Your task to perform on an android device: Open wifi settings Image 0: 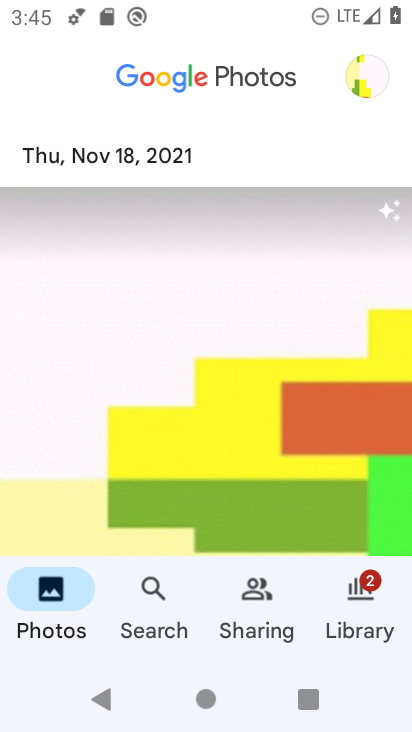
Step 0: press home button
Your task to perform on an android device: Open wifi settings Image 1: 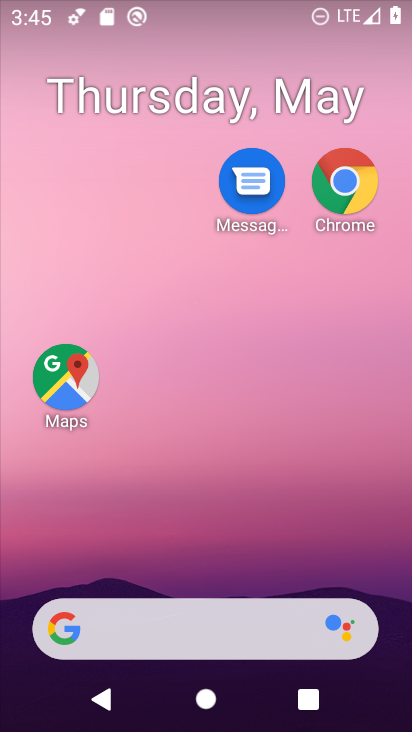
Step 1: drag from (201, 556) to (127, 15)
Your task to perform on an android device: Open wifi settings Image 2: 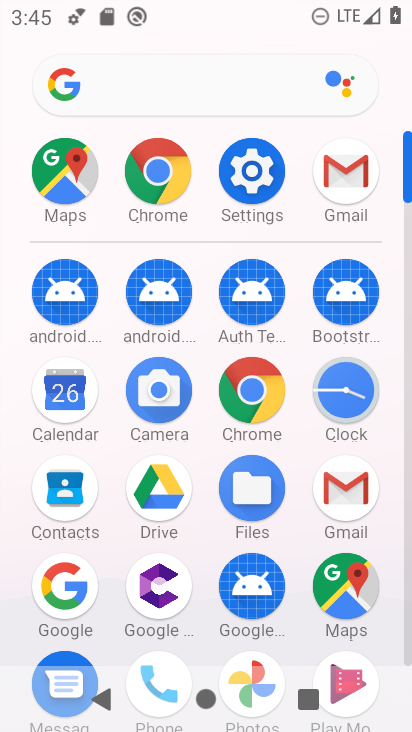
Step 2: click (268, 156)
Your task to perform on an android device: Open wifi settings Image 3: 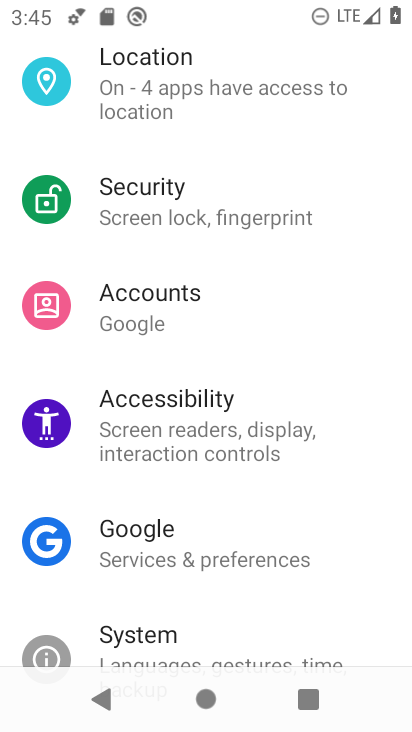
Step 3: drag from (255, 167) to (284, 730)
Your task to perform on an android device: Open wifi settings Image 4: 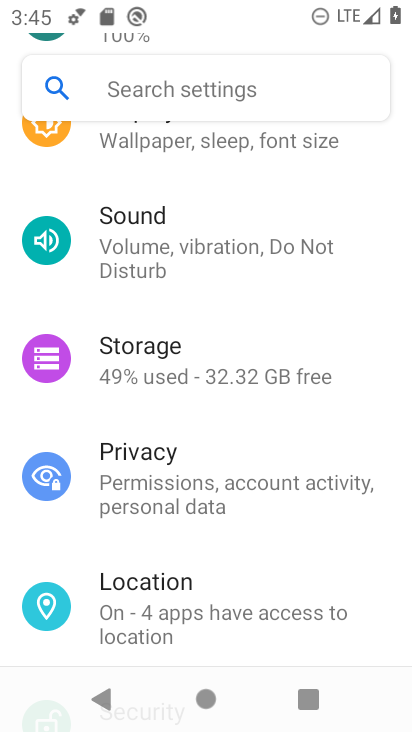
Step 4: drag from (274, 348) to (274, 719)
Your task to perform on an android device: Open wifi settings Image 5: 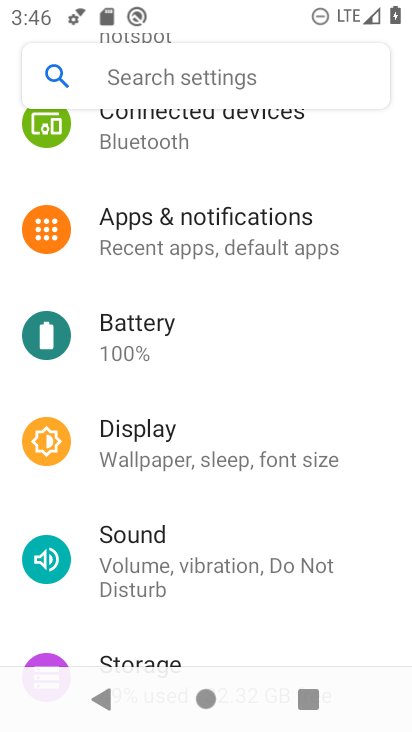
Step 5: drag from (227, 285) to (326, 694)
Your task to perform on an android device: Open wifi settings Image 6: 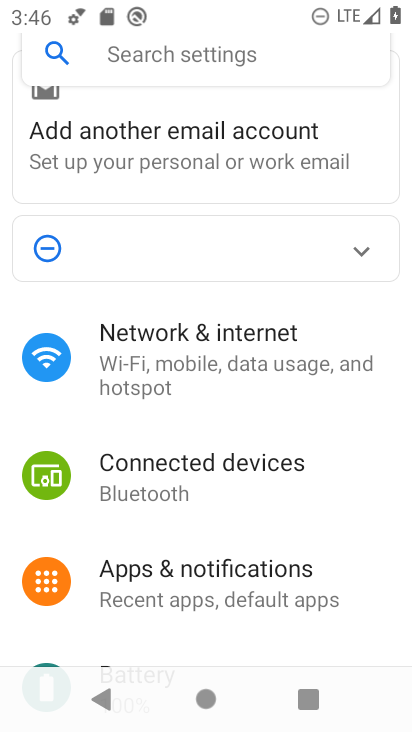
Step 6: click (244, 400)
Your task to perform on an android device: Open wifi settings Image 7: 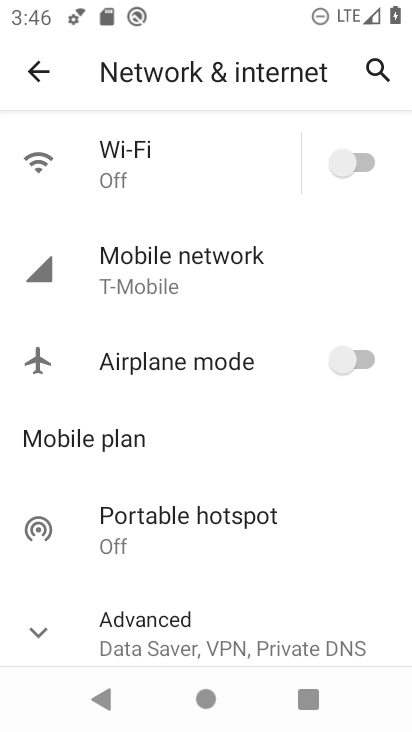
Step 7: click (192, 166)
Your task to perform on an android device: Open wifi settings Image 8: 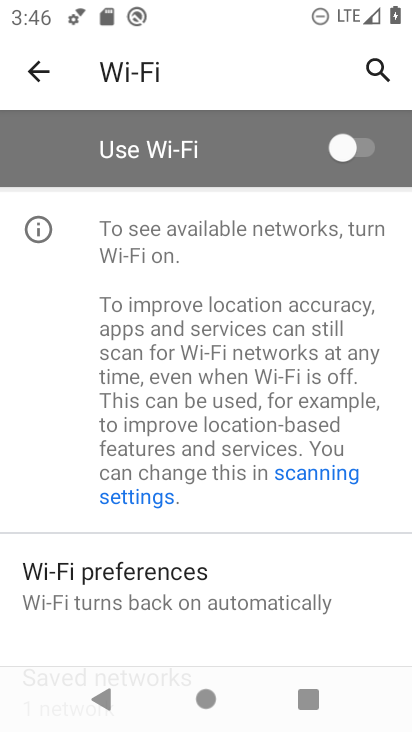
Step 8: task complete